Your task to perform on an android device: Find coffee shops on Maps Image 0: 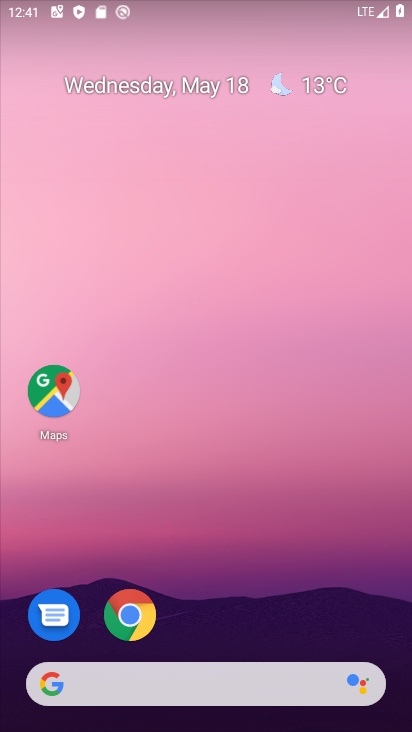
Step 0: click (52, 393)
Your task to perform on an android device: Find coffee shops on Maps Image 1: 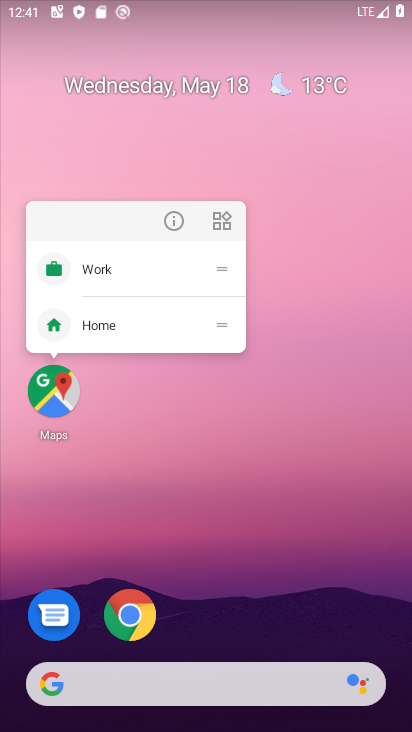
Step 1: click (37, 396)
Your task to perform on an android device: Find coffee shops on Maps Image 2: 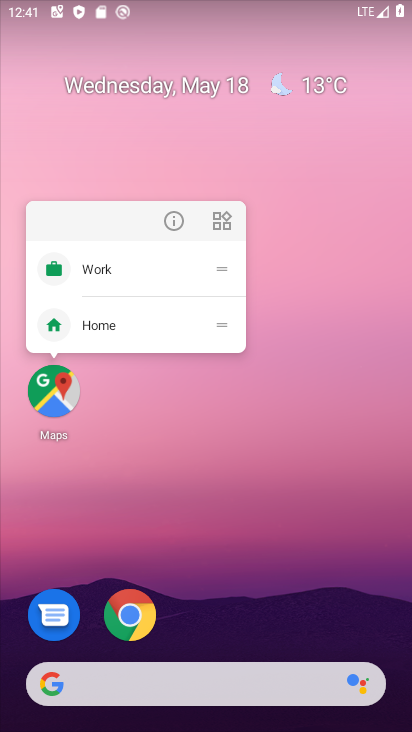
Step 2: click (39, 395)
Your task to perform on an android device: Find coffee shops on Maps Image 3: 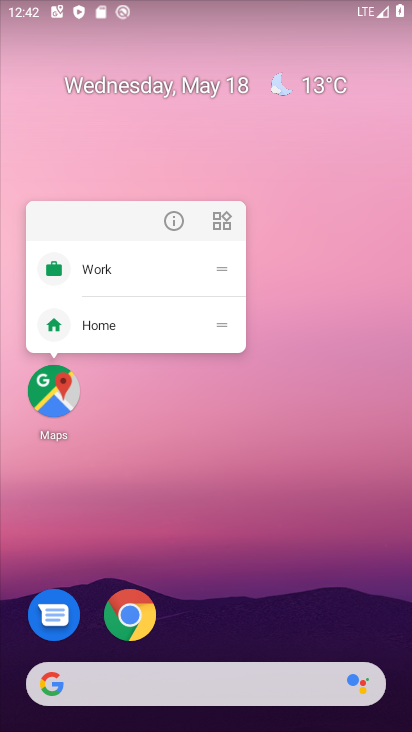
Step 3: click (52, 406)
Your task to perform on an android device: Find coffee shops on Maps Image 4: 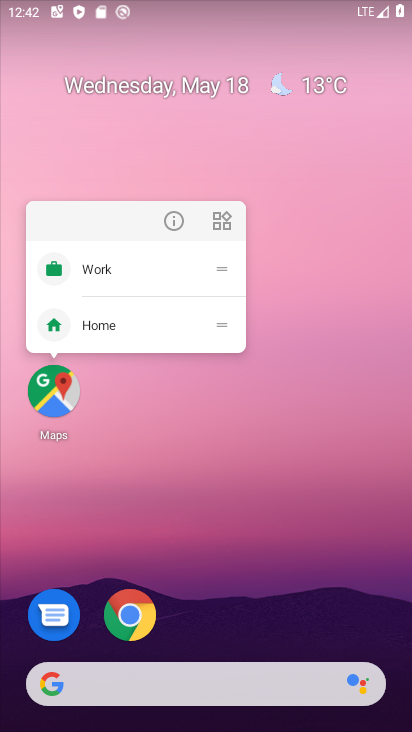
Step 4: click (52, 407)
Your task to perform on an android device: Find coffee shops on Maps Image 5: 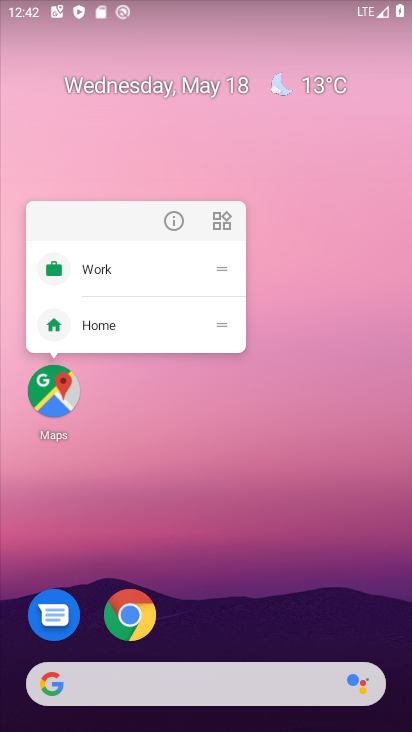
Step 5: click (55, 393)
Your task to perform on an android device: Find coffee shops on Maps Image 6: 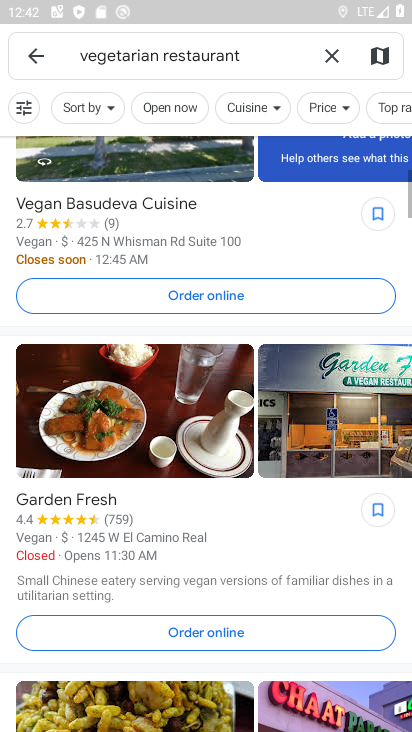
Step 6: click (331, 56)
Your task to perform on an android device: Find coffee shops on Maps Image 7: 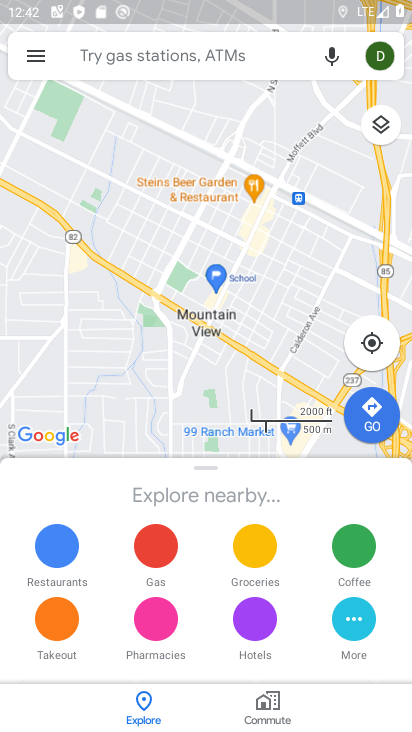
Step 7: click (212, 50)
Your task to perform on an android device: Find coffee shops on Maps Image 8: 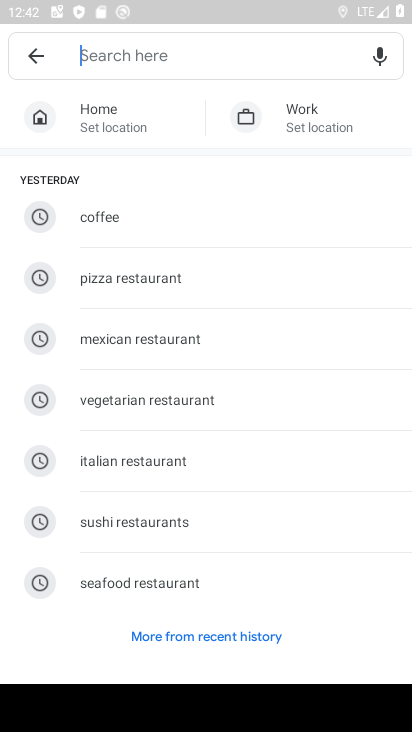
Step 8: click (108, 215)
Your task to perform on an android device: Find coffee shops on Maps Image 9: 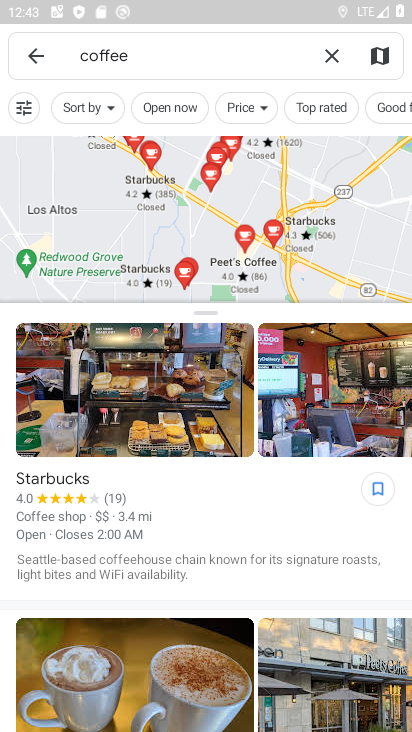
Step 9: task complete